Your task to perform on an android device: Open Google Maps Image 0: 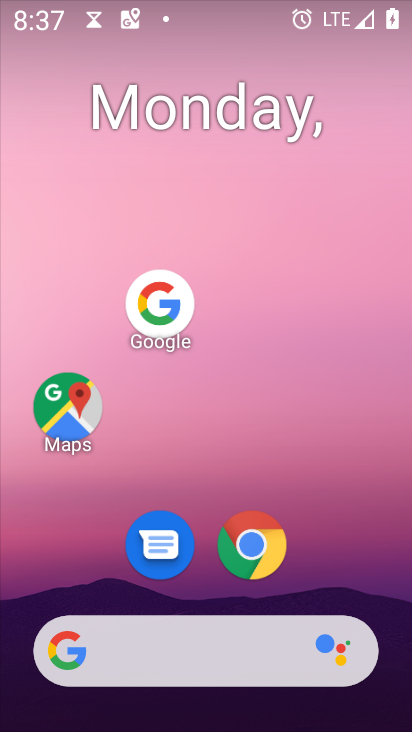
Step 0: press home button
Your task to perform on an android device: Open Google Maps Image 1: 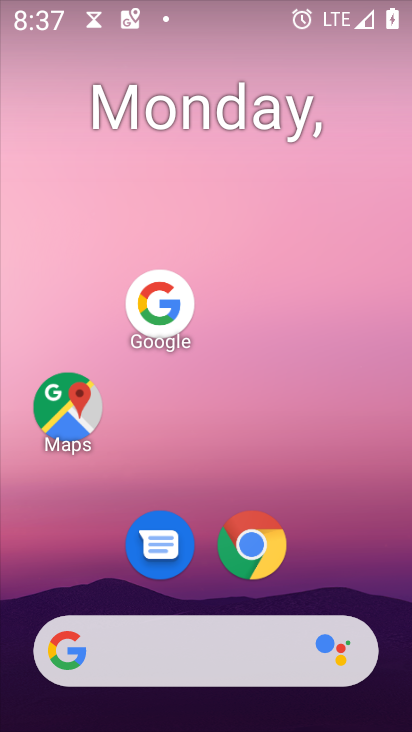
Step 1: click (81, 651)
Your task to perform on an android device: Open Google Maps Image 2: 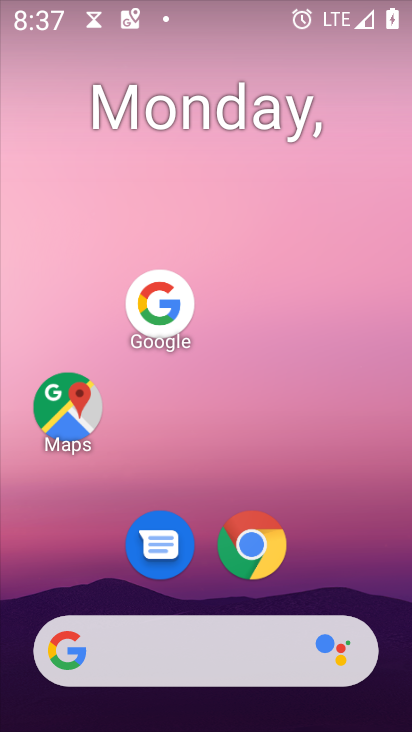
Step 2: click (81, 651)
Your task to perform on an android device: Open Google Maps Image 3: 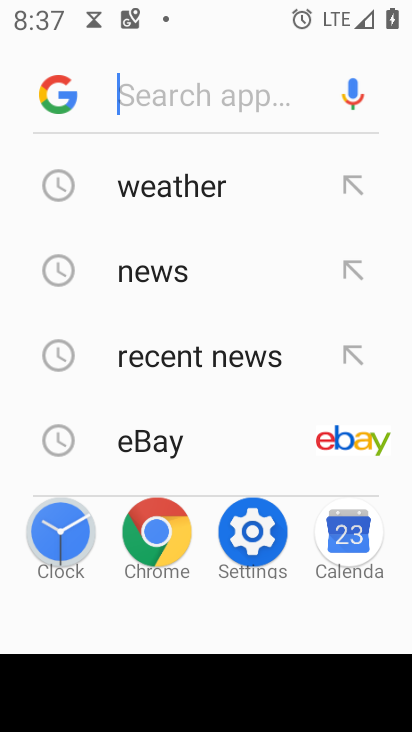
Step 3: press home button
Your task to perform on an android device: Open Google Maps Image 4: 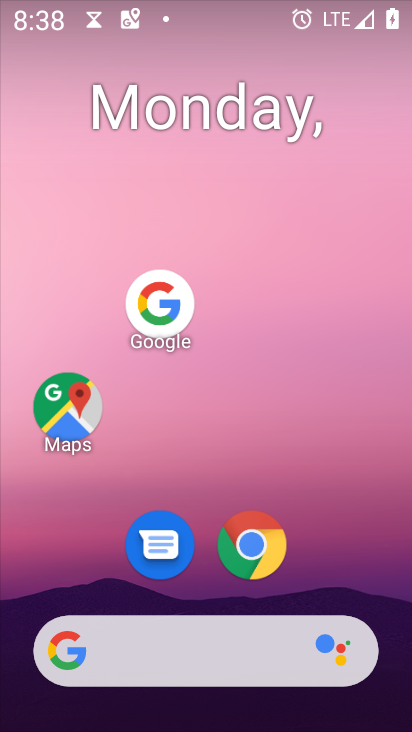
Step 4: click (70, 415)
Your task to perform on an android device: Open Google Maps Image 5: 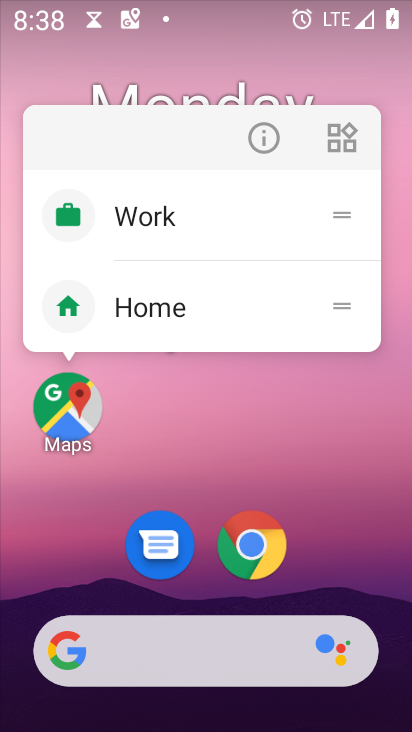
Step 5: click (60, 424)
Your task to perform on an android device: Open Google Maps Image 6: 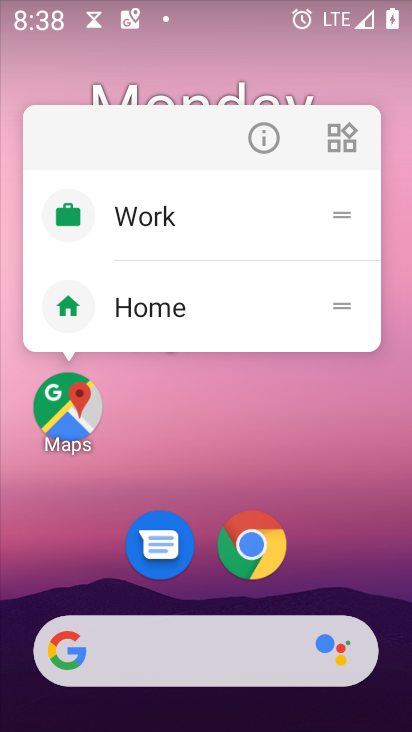
Step 6: click (73, 431)
Your task to perform on an android device: Open Google Maps Image 7: 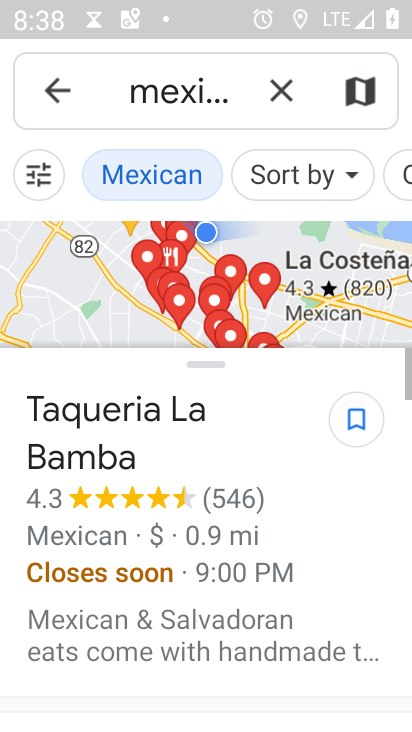
Step 7: click (59, 94)
Your task to perform on an android device: Open Google Maps Image 8: 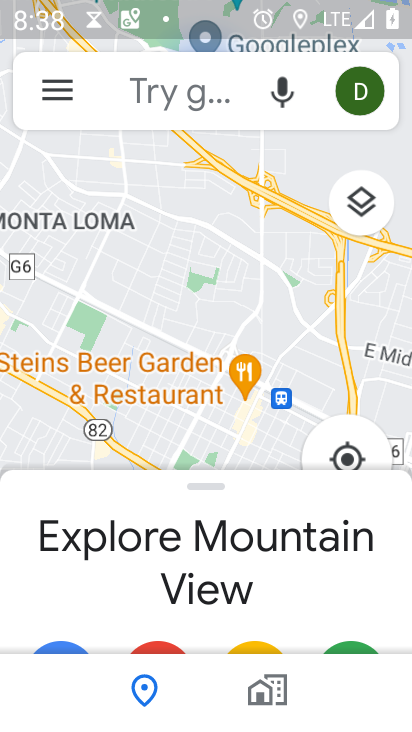
Step 8: task complete